Your task to perform on an android device: Go to Wikipedia Image 0: 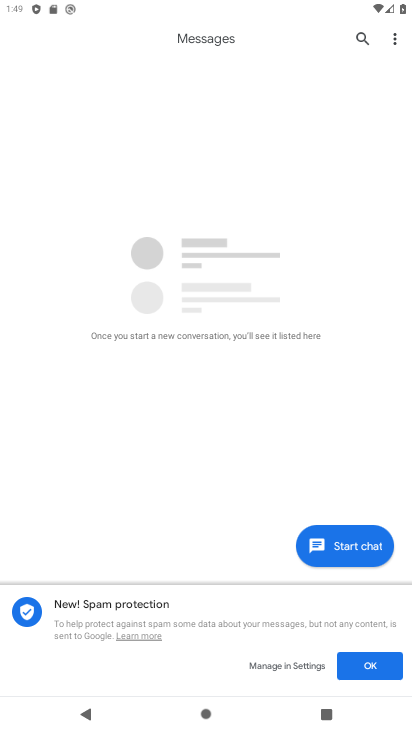
Step 0: press back button
Your task to perform on an android device: Go to Wikipedia Image 1: 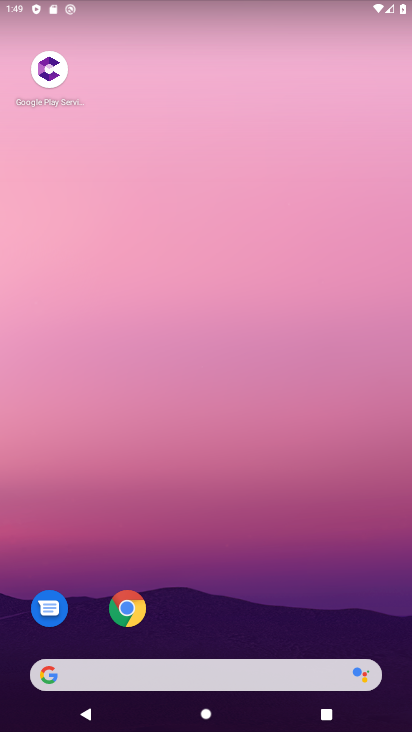
Step 1: click (126, 607)
Your task to perform on an android device: Go to Wikipedia Image 2: 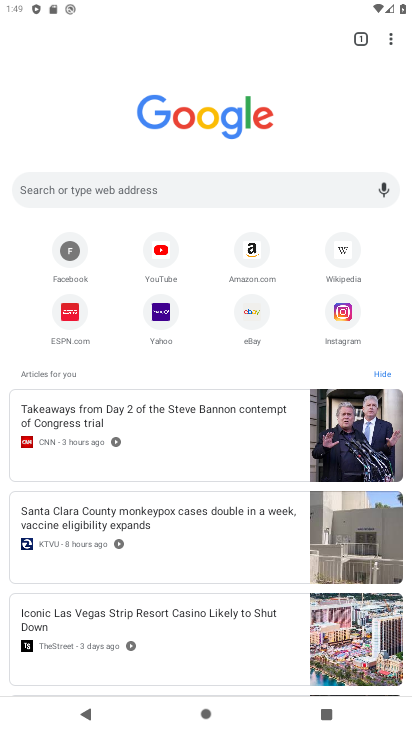
Step 2: click (343, 242)
Your task to perform on an android device: Go to Wikipedia Image 3: 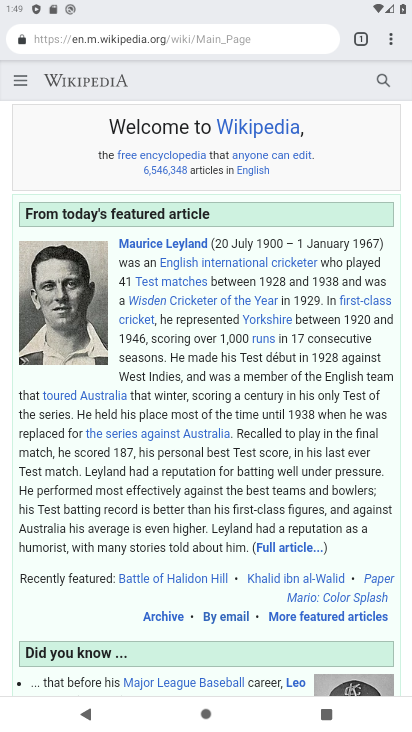
Step 3: task complete